Your task to perform on an android device: turn off improve location accuracy Image 0: 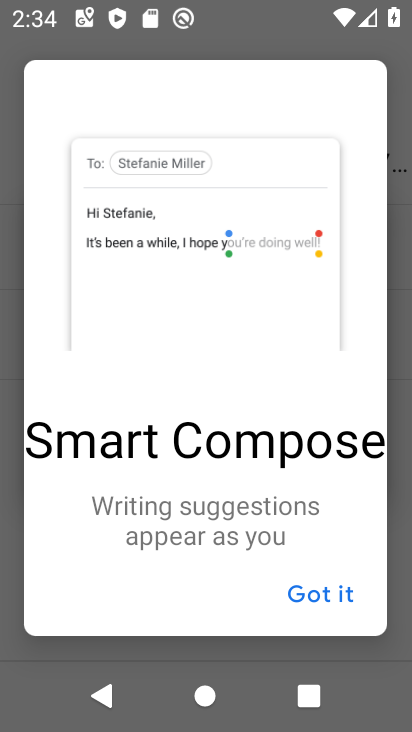
Step 0: press home button
Your task to perform on an android device: turn off improve location accuracy Image 1: 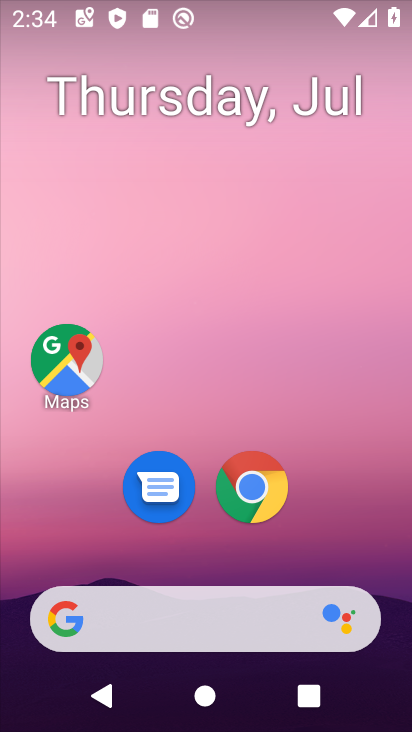
Step 1: drag from (363, 534) to (366, 168)
Your task to perform on an android device: turn off improve location accuracy Image 2: 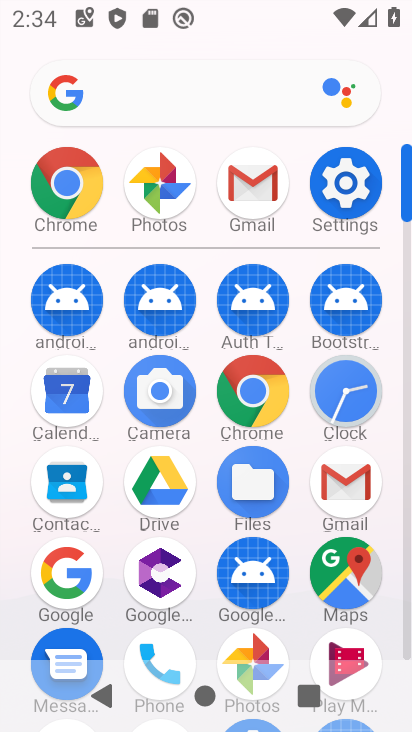
Step 2: click (350, 188)
Your task to perform on an android device: turn off improve location accuracy Image 3: 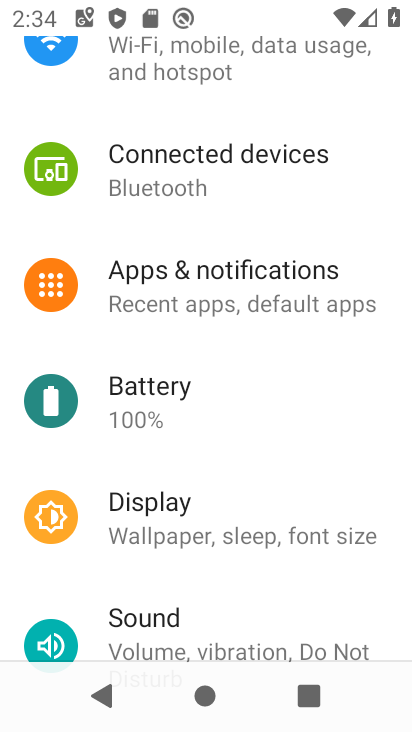
Step 3: drag from (369, 197) to (367, 360)
Your task to perform on an android device: turn off improve location accuracy Image 4: 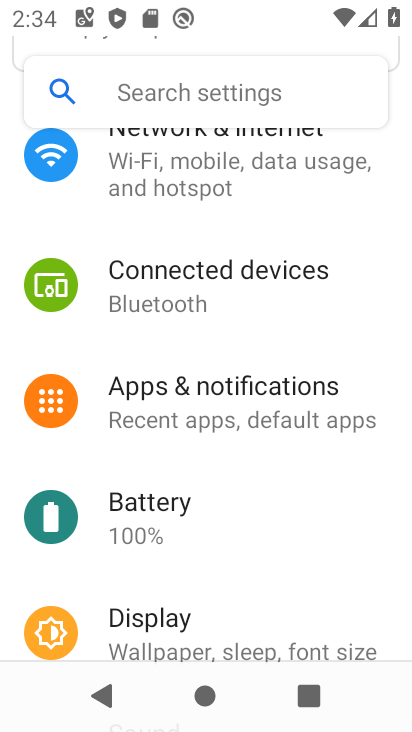
Step 4: drag from (370, 213) to (371, 373)
Your task to perform on an android device: turn off improve location accuracy Image 5: 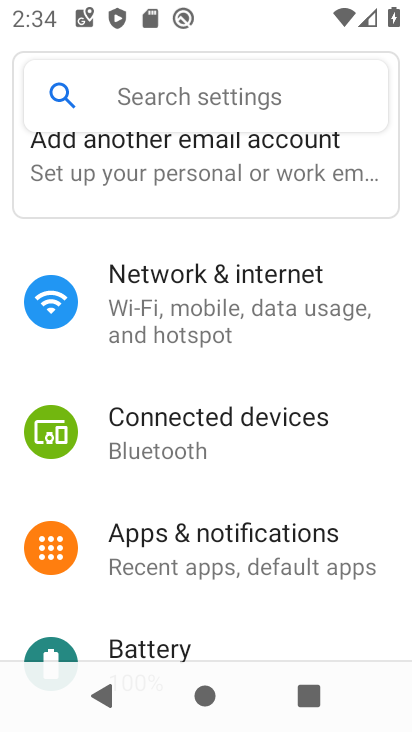
Step 5: drag from (373, 225) to (358, 408)
Your task to perform on an android device: turn off improve location accuracy Image 6: 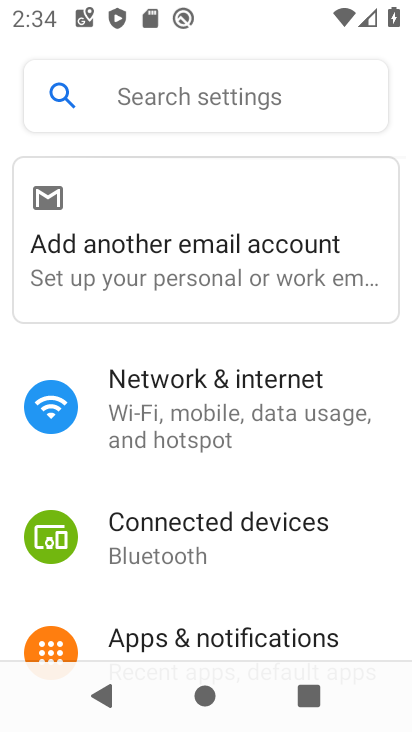
Step 6: drag from (355, 533) to (353, 375)
Your task to perform on an android device: turn off improve location accuracy Image 7: 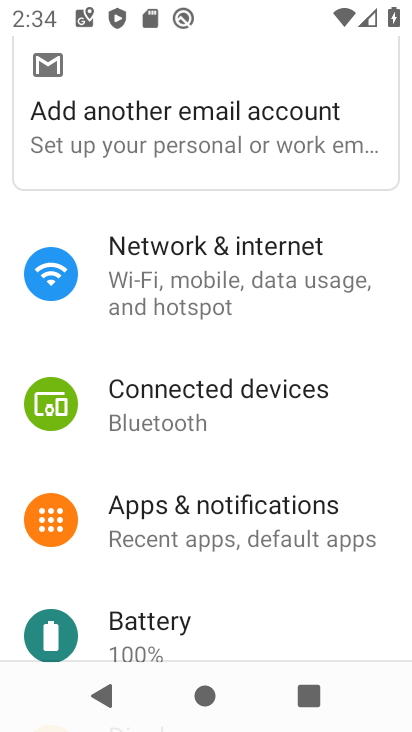
Step 7: drag from (366, 561) to (372, 382)
Your task to perform on an android device: turn off improve location accuracy Image 8: 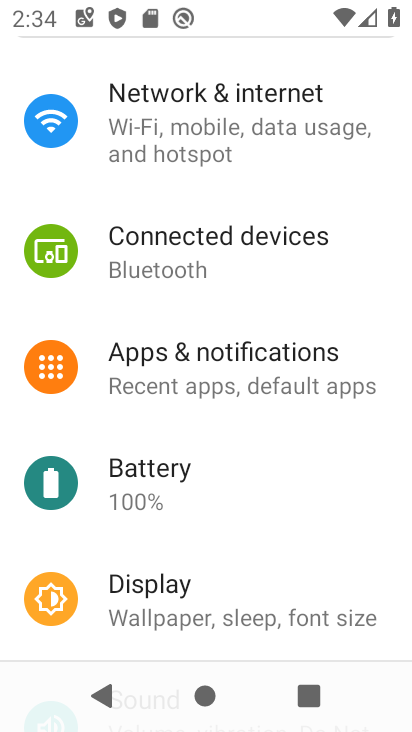
Step 8: drag from (376, 561) to (379, 386)
Your task to perform on an android device: turn off improve location accuracy Image 9: 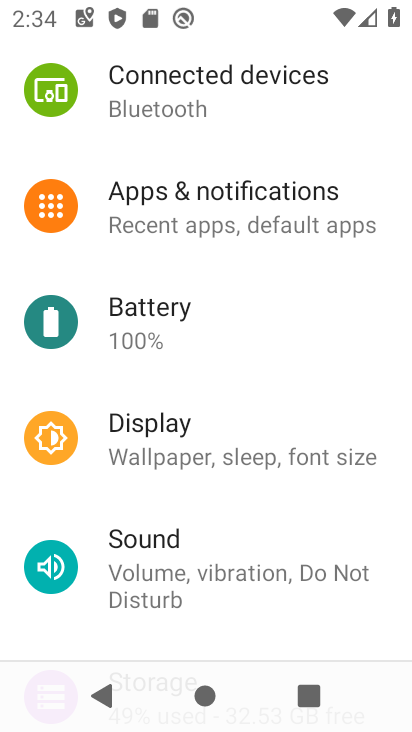
Step 9: drag from (353, 529) to (354, 393)
Your task to perform on an android device: turn off improve location accuracy Image 10: 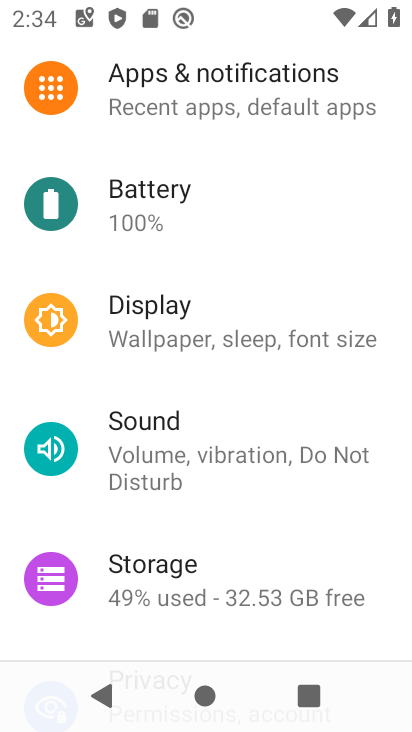
Step 10: drag from (356, 544) to (366, 337)
Your task to perform on an android device: turn off improve location accuracy Image 11: 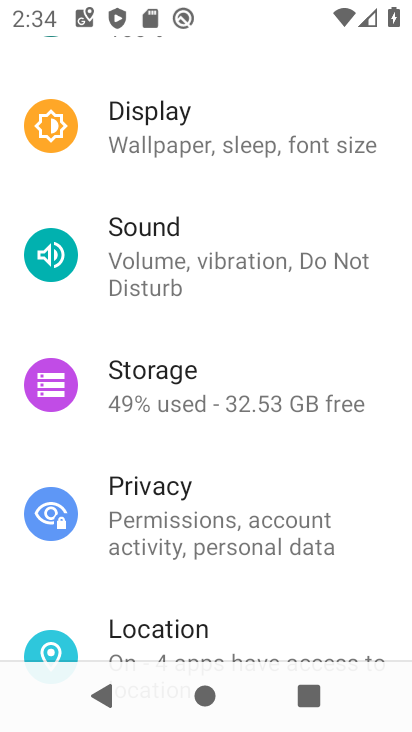
Step 11: drag from (367, 582) to (379, 401)
Your task to perform on an android device: turn off improve location accuracy Image 12: 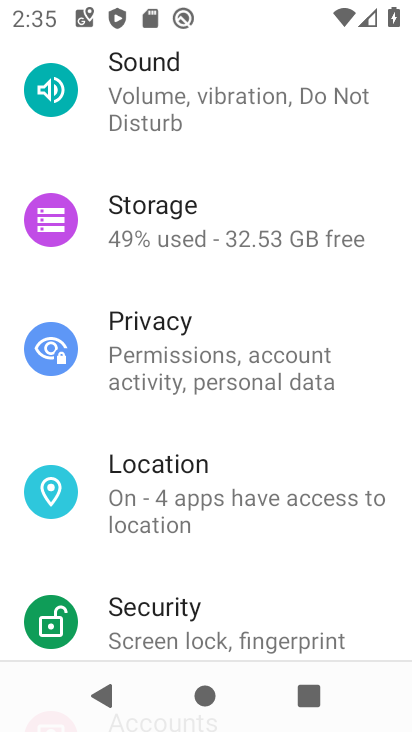
Step 12: click (260, 503)
Your task to perform on an android device: turn off improve location accuracy Image 13: 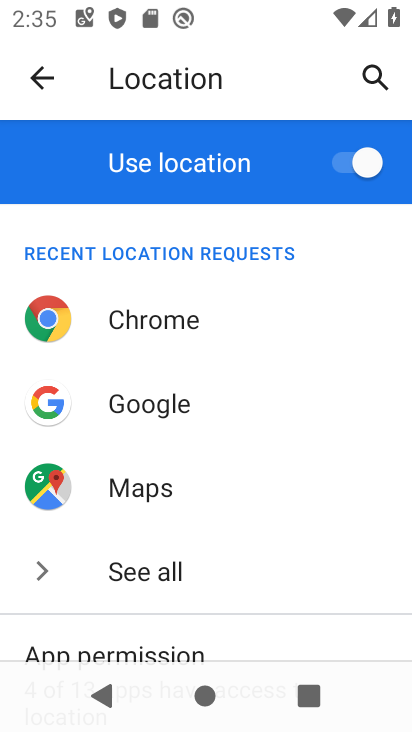
Step 13: drag from (306, 517) to (305, 377)
Your task to perform on an android device: turn off improve location accuracy Image 14: 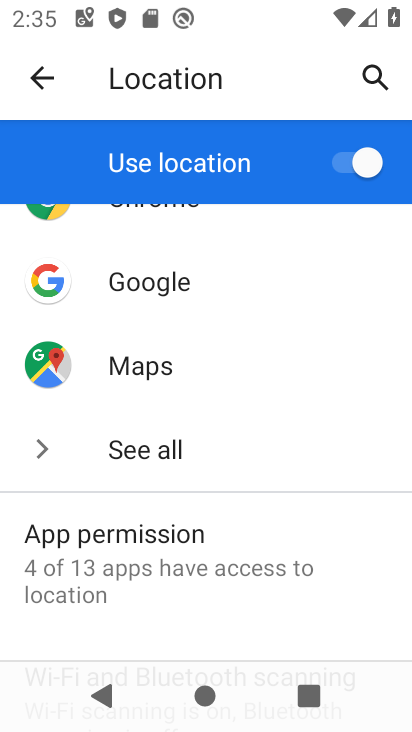
Step 14: drag from (335, 586) to (357, 444)
Your task to perform on an android device: turn off improve location accuracy Image 15: 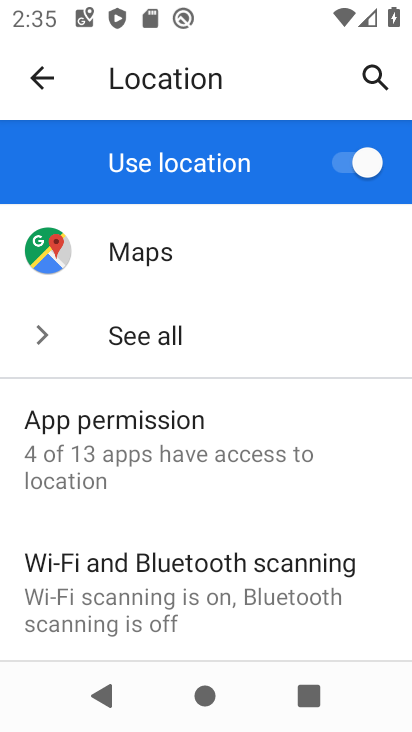
Step 15: drag from (372, 615) to (372, 460)
Your task to perform on an android device: turn off improve location accuracy Image 16: 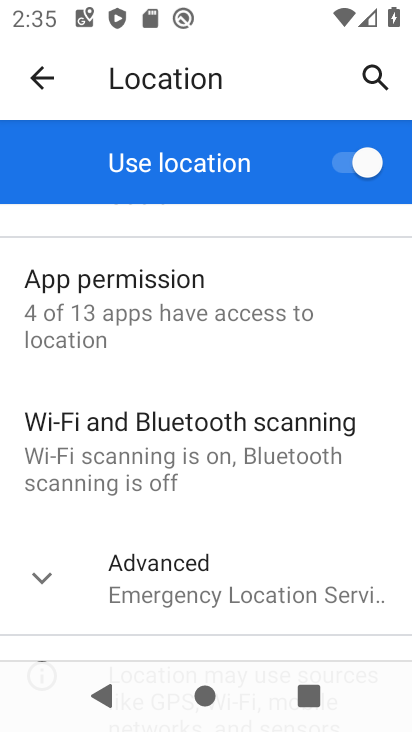
Step 16: drag from (355, 556) to (369, 447)
Your task to perform on an android device: turn off improve location accuracy Image 17: 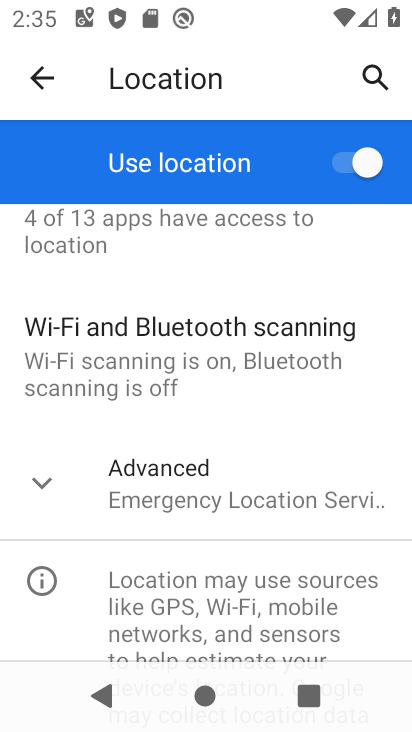
Step 17: click (277, 494)
Your task to perform on an android device: turn off improve location accuracy Image 18: 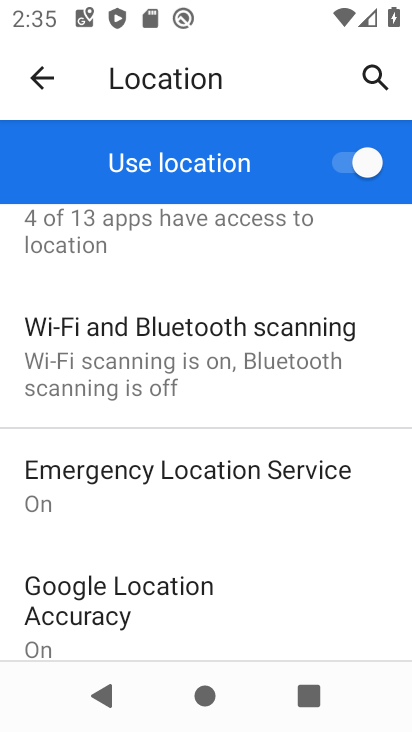
Step 18: drag from (325, 577) to (343, 475)
Your task to perform on an android device: turn off improve location accuracy Image 19: 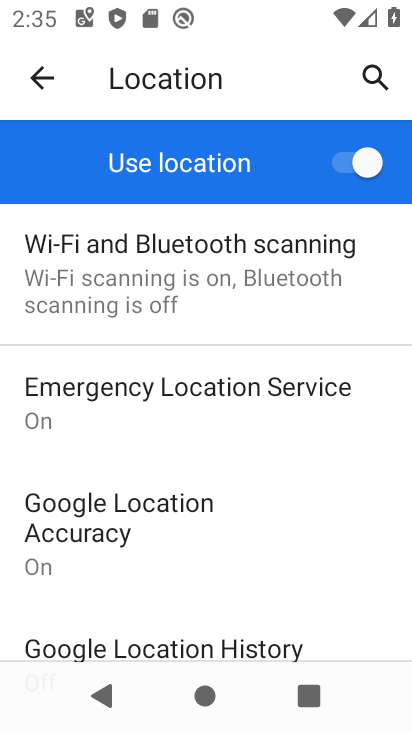
Step 19: click (135, 528)
Your task to perform on an android device: turn off improve location accuracy Image 20: 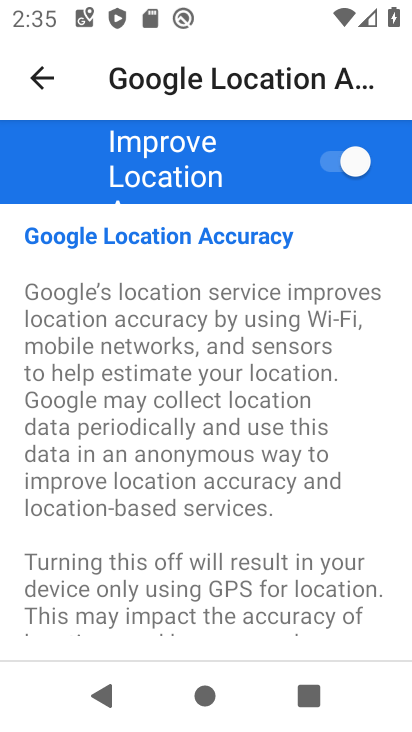
Step 20: click (343, 169)
Your task to perform on an android device: turn off improve location accuracy Image 21: 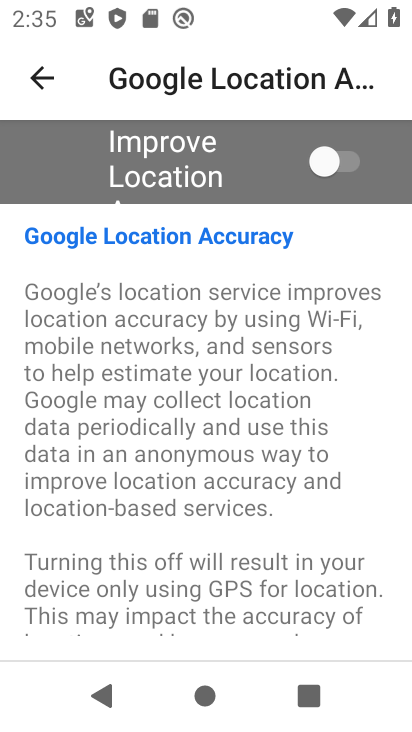
Step 21: task complete